Your task to perform on an android device: Go to accessibility settings Image 0: 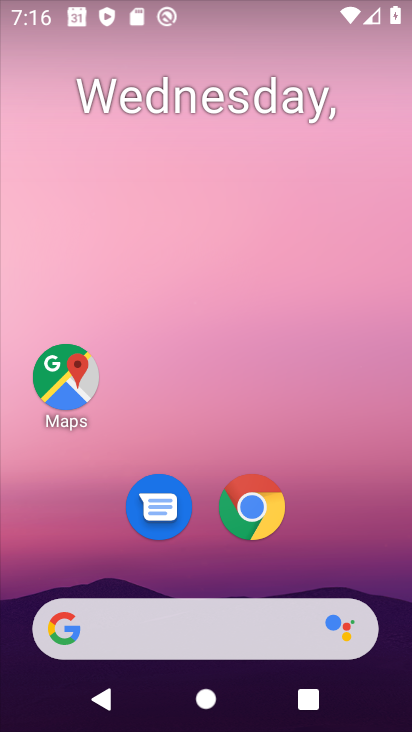
Step 0: press home button
Your task to perform on an android device: Go to accessibility settings Image 1: 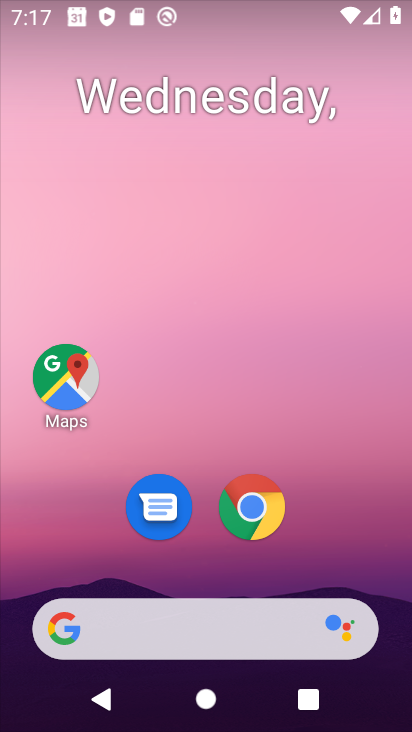
Step 1: drag from (290, 668) to (251, 239)
Your task to perform on an android device: Go to accessibility settings Image 2: 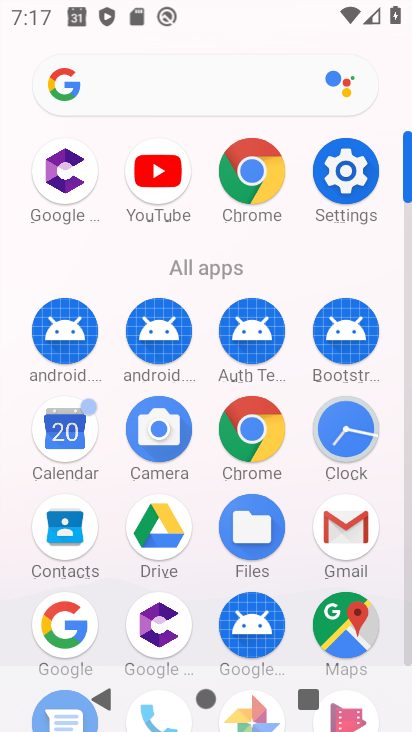
Step 2: click (346, 178)
Your task to perform on an android device: Go to accessibility settings Image 3: 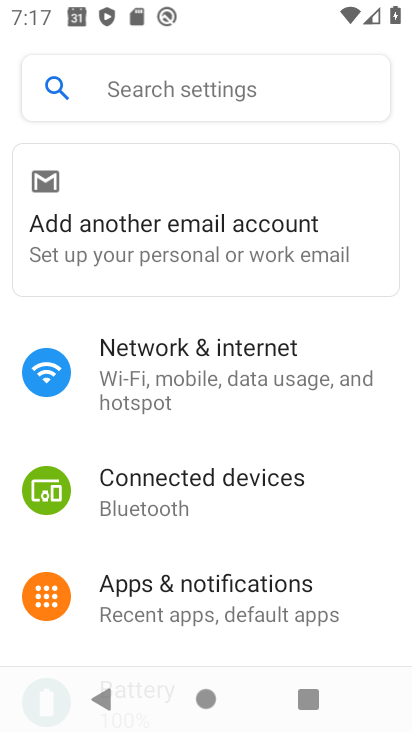
Step 3: click (225, 106)
Your task to perform on an android device: Go to accessibility settings Image 4: 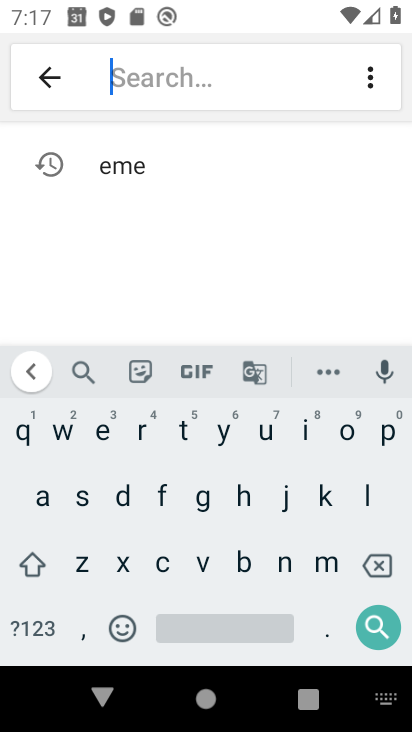
Step 4: click (38, 490)
Your task to perform on an android device: Go to accessibility settings Image 5: 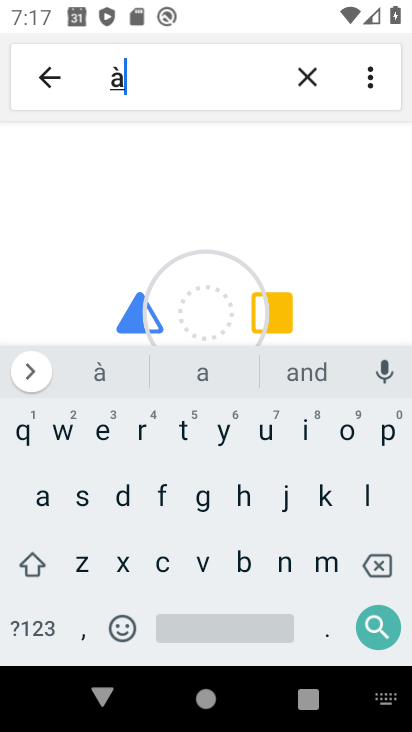
Step 5: click (371, 568)
Your task to perform on an android device: Go to accessibility settings Image 6: 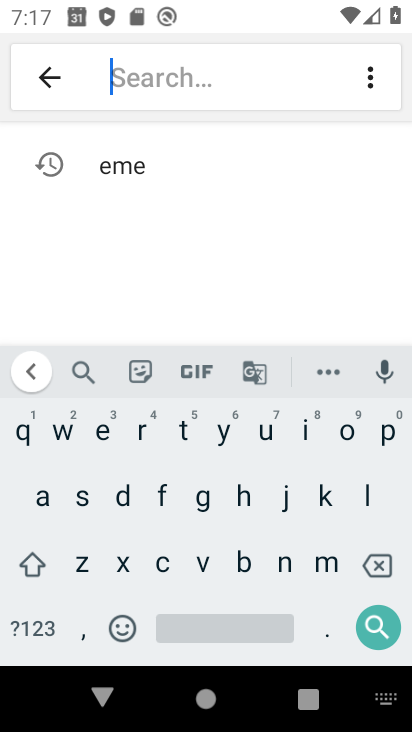
Step 6: click (46, 493)
Your task to perform on an android device: Go to accessibility settings Image 7: 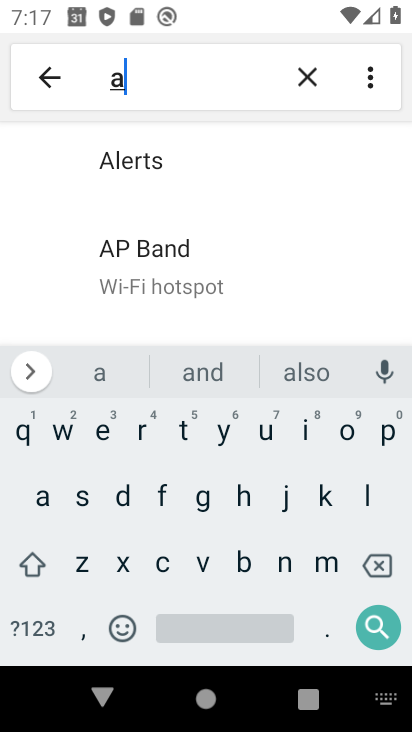
Step 7: click (158, 560)
Your task to perform on an android device: Go to accessibility settings Image 8: 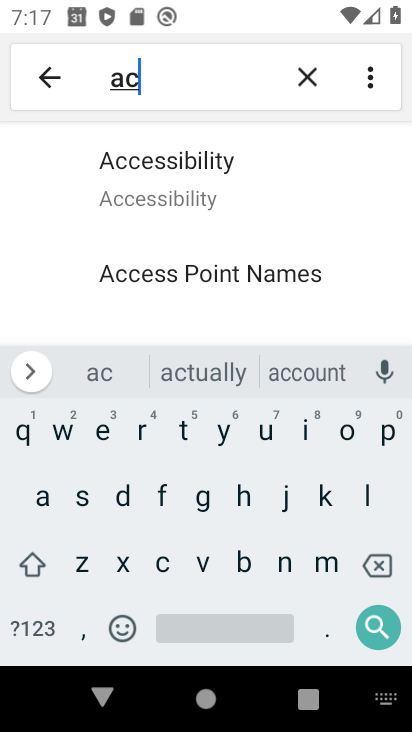
Step 8: click (180, 179)
Your task to perform on an android device: Go to accessibility settings Image 9: 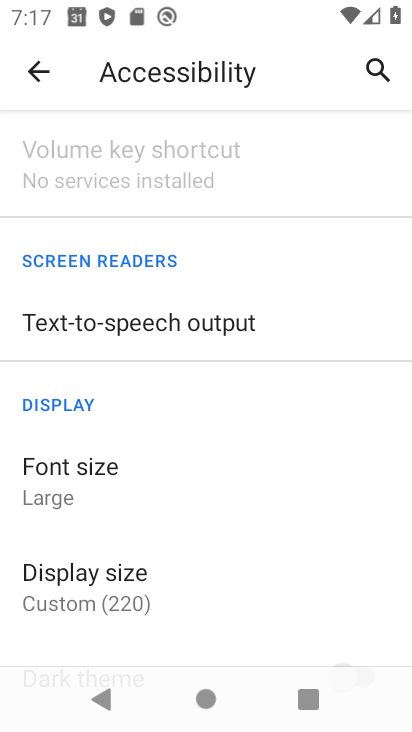
Step 9: task complete